Your task to perform on an android device: turn off improve location accuracy Image 0: 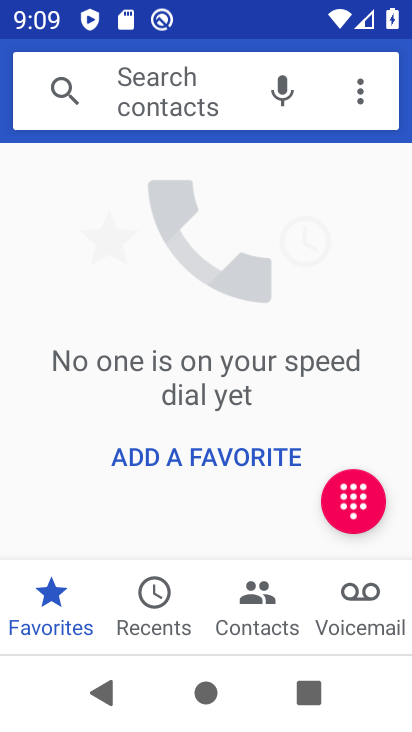
Step 0: press home button
Your task to perform on an android device: turn off improve location accuracy Image 1: 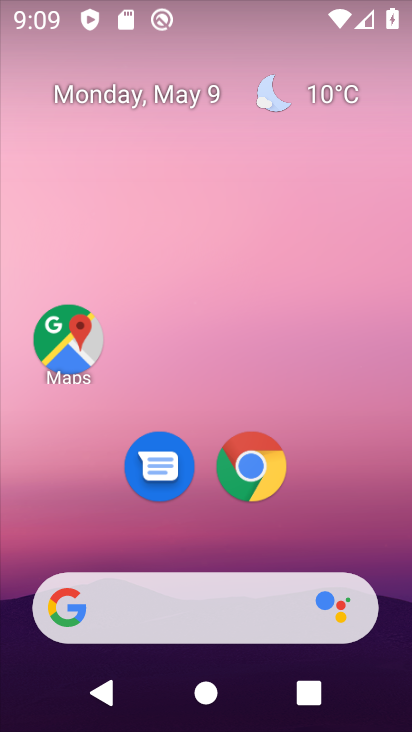
Step 1: drag from (237, 537) to (182, 0)
Your task to perform on an android device: turn off improve location accuracy Image 2: 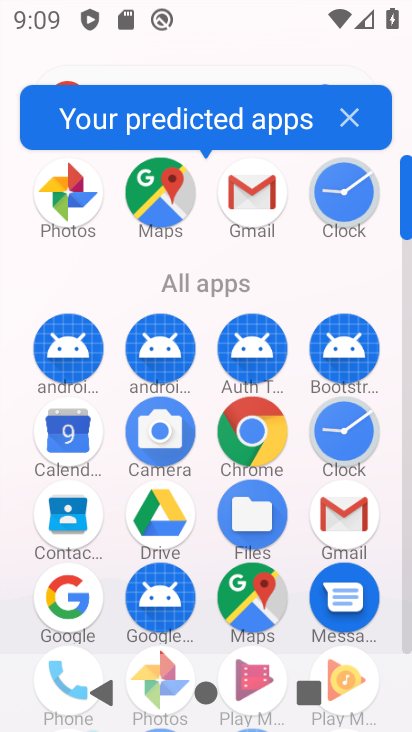
Step 2: drag from (197, 564) to (195, 35)
Your task to perform on an android device: turn off improve location accuracy Image 3: 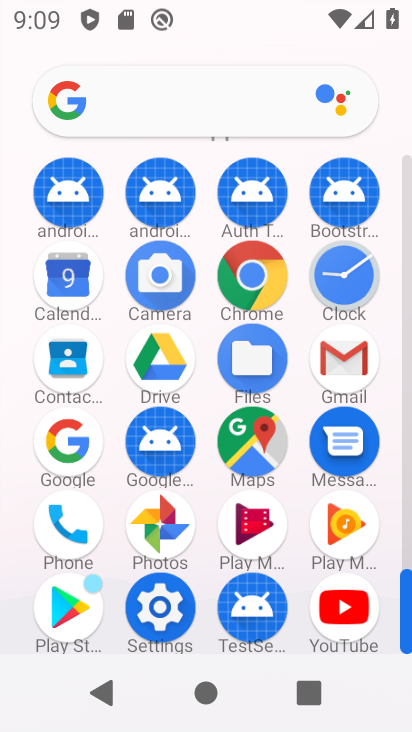
Step 3: click (145, 616)
Your task to perform on an android device: turn off improve location accuracy Image 4: 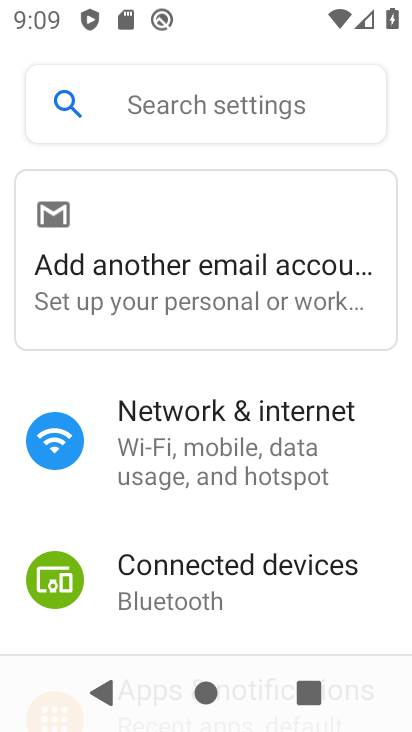
Step 4: drag from (219, 593) to (216, 296)
Your task to perform on an android device: turn off improve location accuracy Image 5: 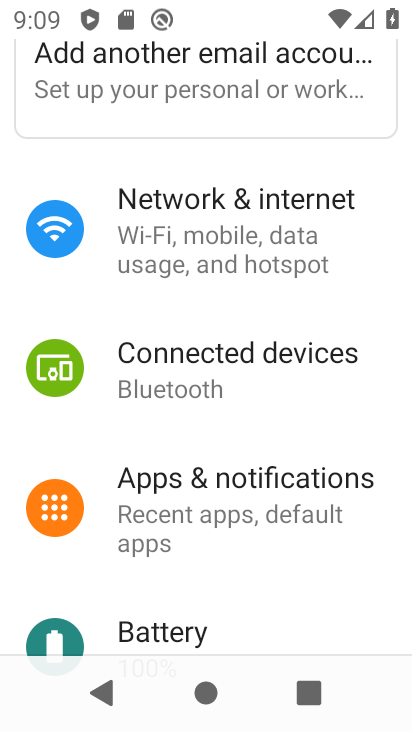
Step 5: drag from (237, 616) to (234, 299)
Your task to perform on an android device: turn off improve location accuracy Image 6: 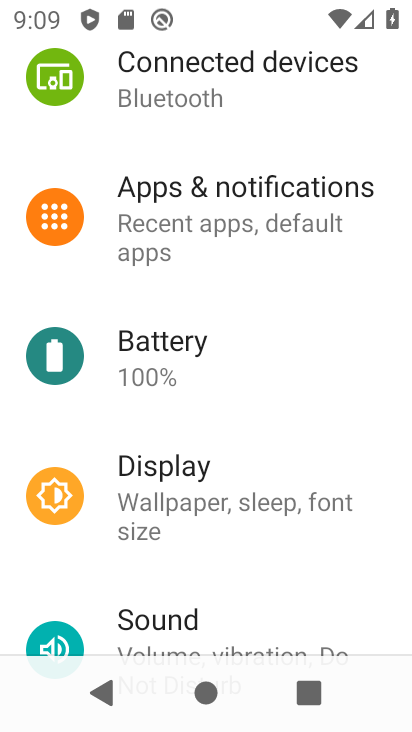
Step 6: drag from (240, 515) to (234, 234)
Your task to perform on an android device: turn off improve location accuracy Image 7: 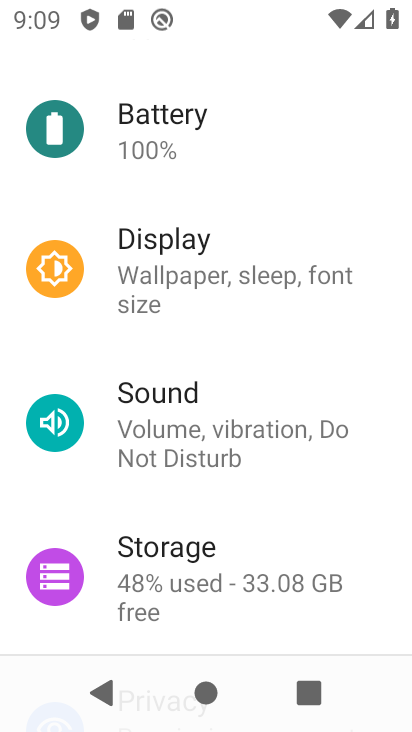
Step 7: drag from (265, 561) to (238, 299)
Your task to perform on an android device: turn off improve location accuracy Image 8: 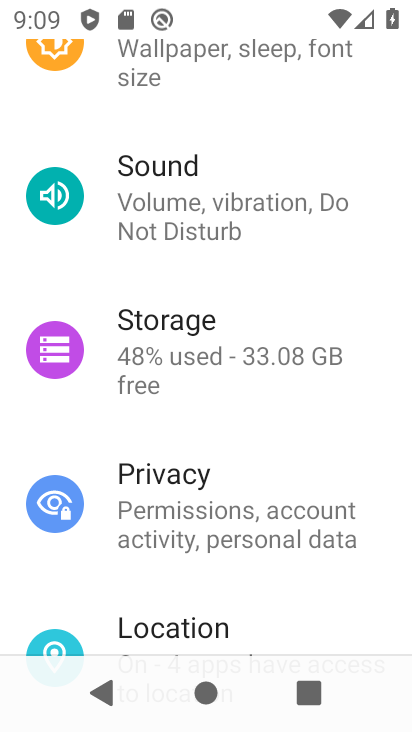
Step 8: click (240, 624)
Your task to perform on an android device: turn off improve location accuracy Image 9: 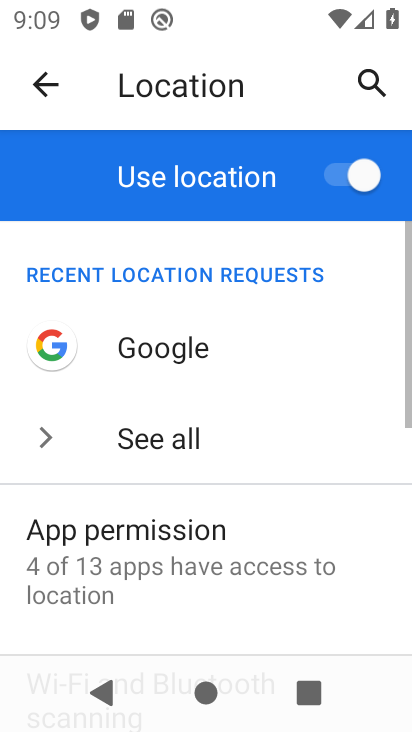
Step 9: drag from (286, 557) to (265, 205)
Your task to perform on an android device: turn off improve location accuracy Image 10: 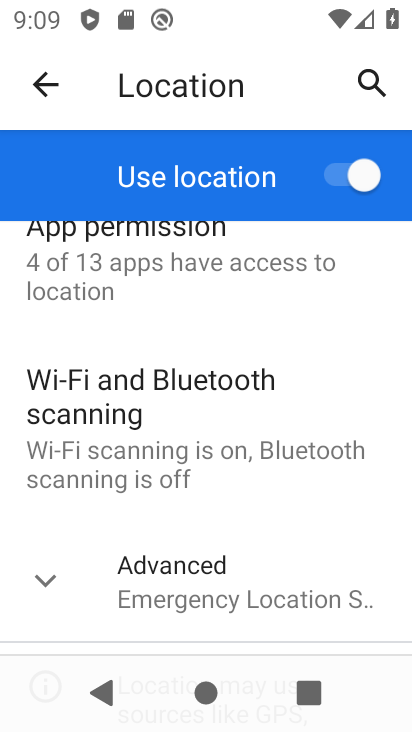
Step 10: drag from (164, 546) to (155, 255)
Your task to perform on an android device: turn off improve location accuracy Image 11: 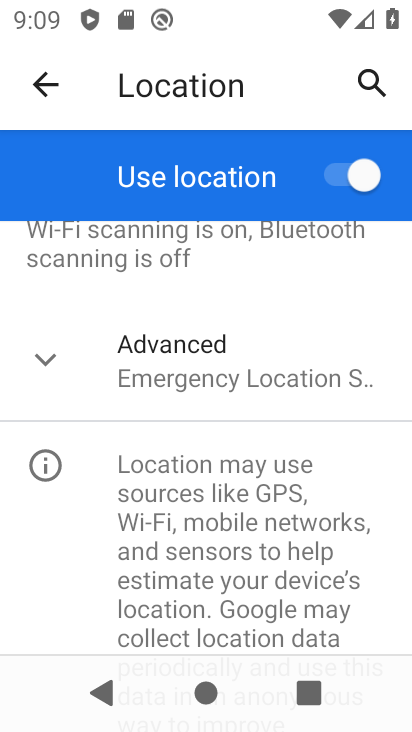
Step 11: click (184, 331)
Your task to perform on an android device: turn off improve location accuracy Image 12: 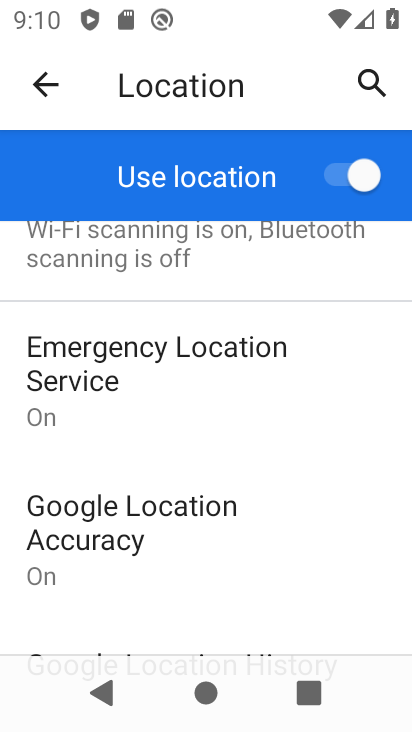
Step 12: click (195, 513)
Your task to perform on an android device: turn off improve location accuracy Image 13: 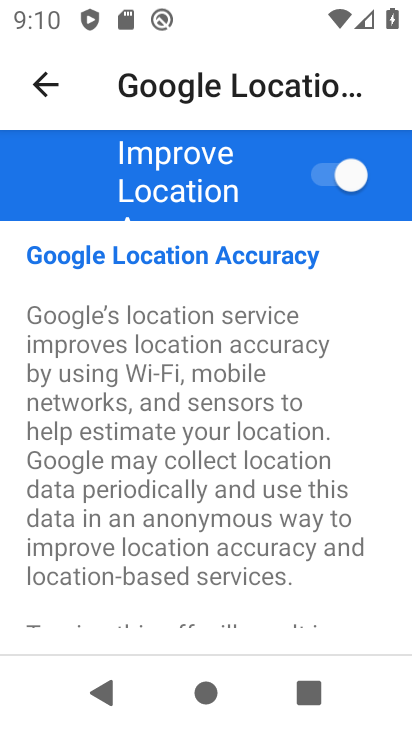
Step 13: click (324, 178)
Your task to perform on an android device: turn off improve location accuracy Image 14: 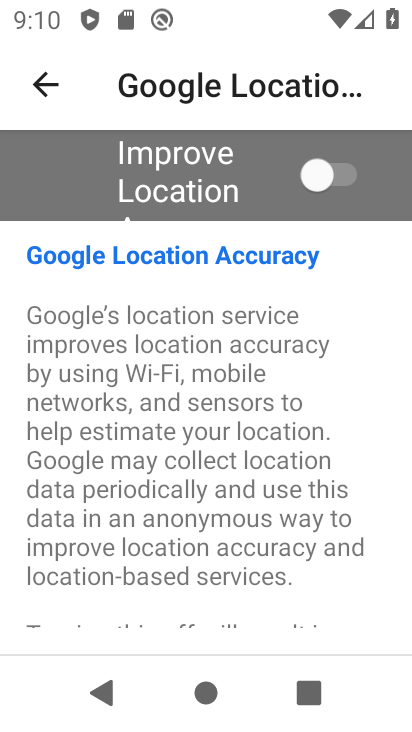
Step 14: task complete